Your task to perform on an android device: Go to accessibility settings Image 0: 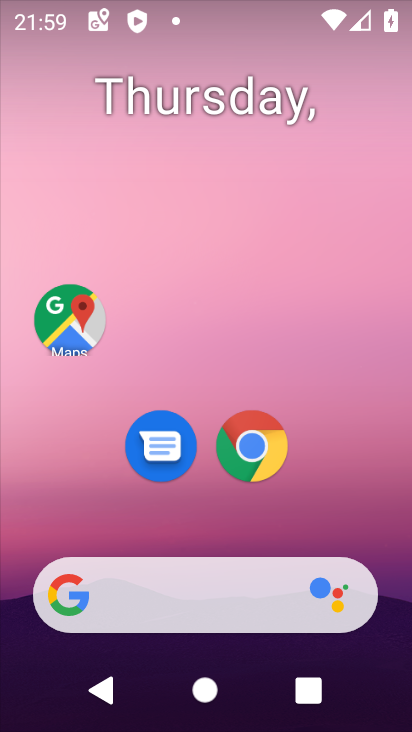
Step 0: drag from (308, 517) to (274, 12)
Your task to perform on an android device: Go to accessibility settings Image 1: 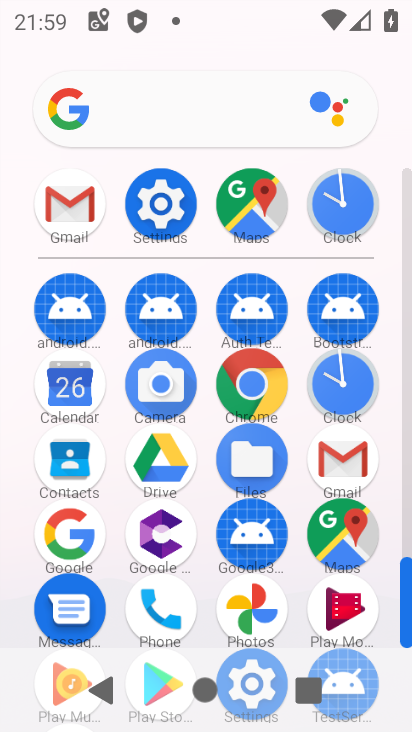
Step 1: click (134, 174)
Your task to perform on an android device: Go to accessibility settings Image 2: 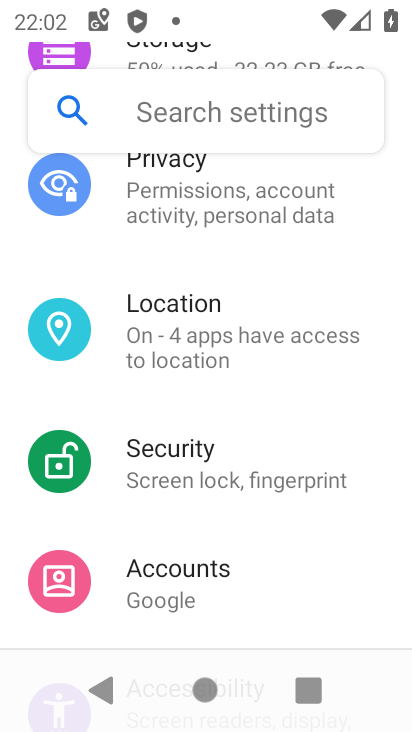
Step 2: drag from (307, 566) to (282, 118)
Your task to perform on an android device: Go to accessibility settings Image 3: 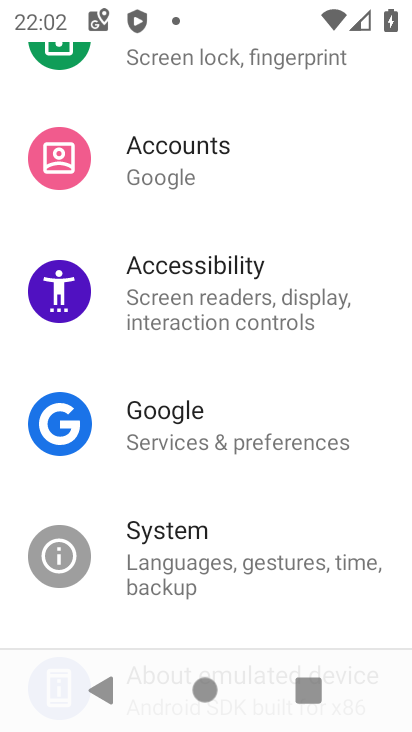
Step 3: click (276, 260)
Your task to perform on an android device: Go to accessibility settings Image 4: 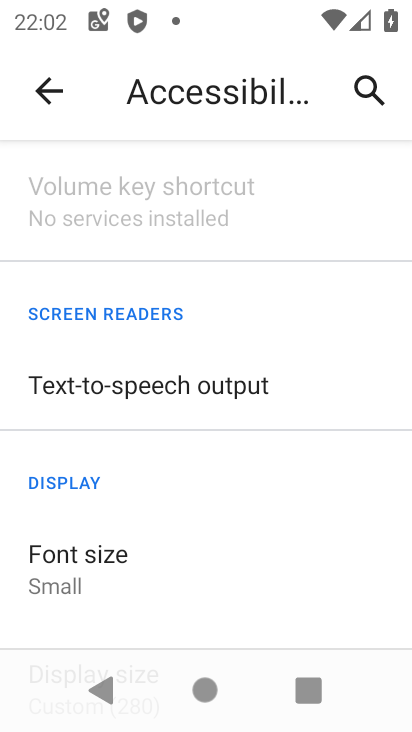
Step 4: task complete